Your task to perform on an android device: check battery use Image 0: 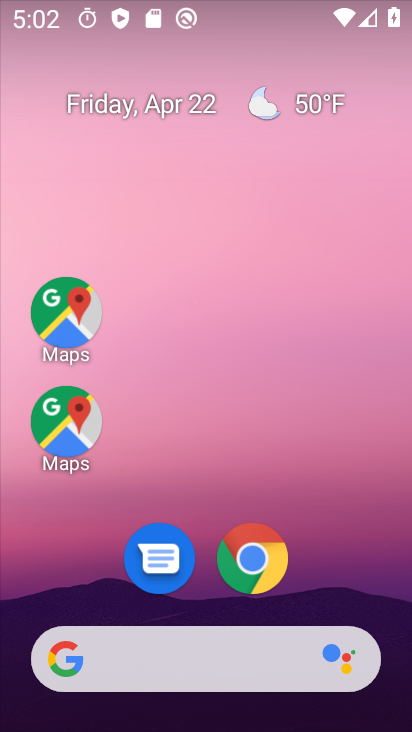
Step 0: drag from (328, 513) to (276, 196)
Your task to perform on an android device: check battery use Image 1: 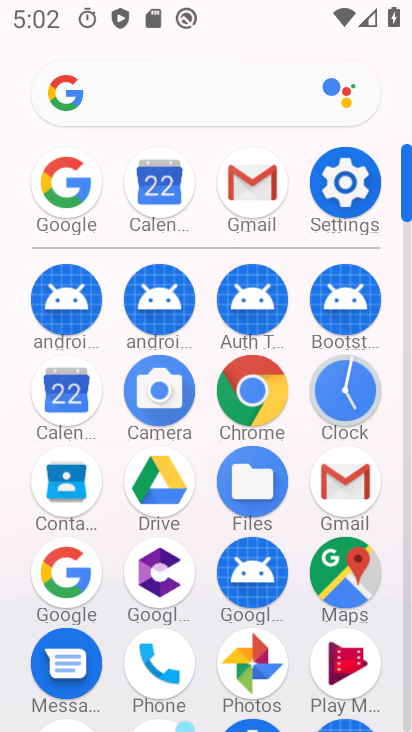
Step 1: click (337, 198)
Your task to perform on an android device: check battery use Image 2: 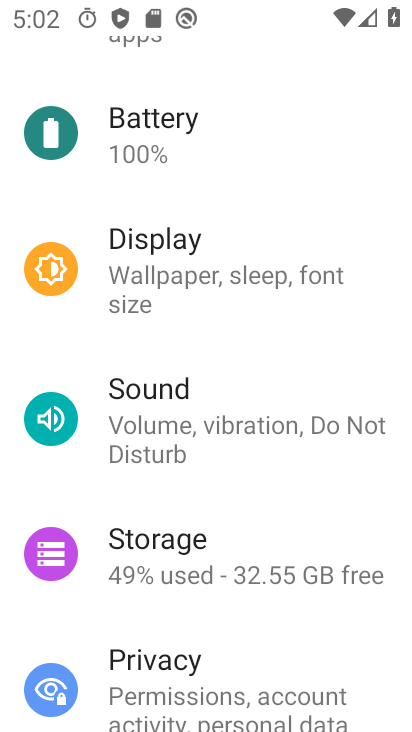
Step 2: click (150, 152)
Your task to perform on an android device: check battery use Image 3: 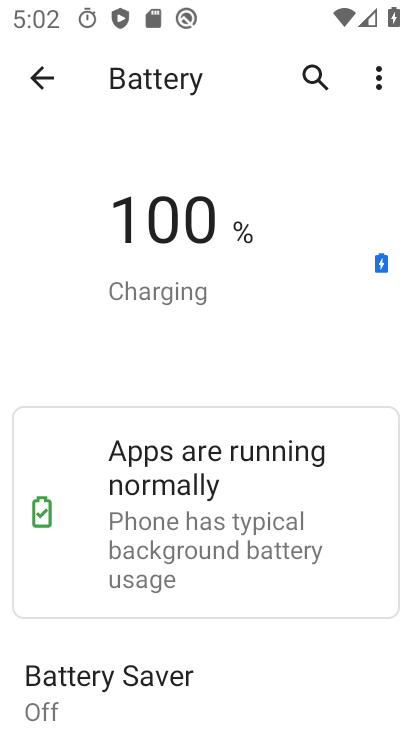
Step 3: task complete